Your task to perform on an android device: set the stopwatch Image 0: 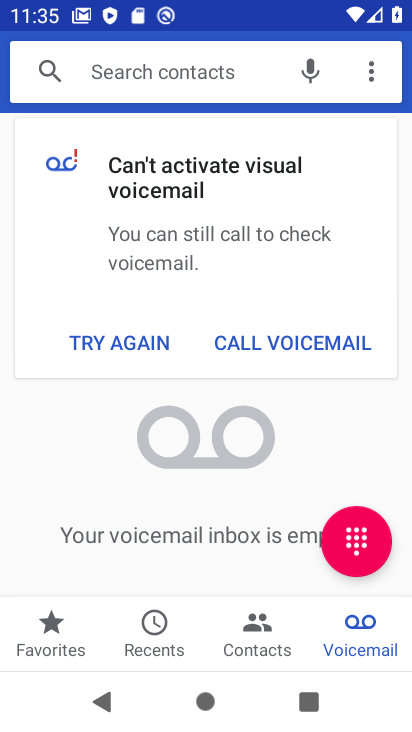
Step 0: press home button
Your task to perform on an android device: set the stopwatch Image 1: 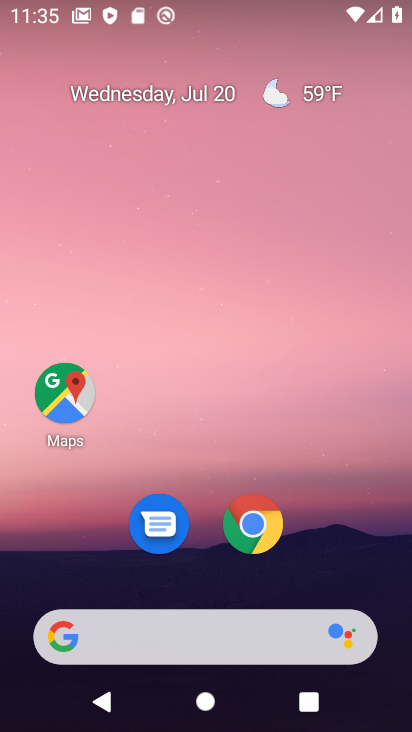
Step 1: drag from (227, 604) to (292, 170)
Your task to perform on an android device: set the stopwatch Image 2: 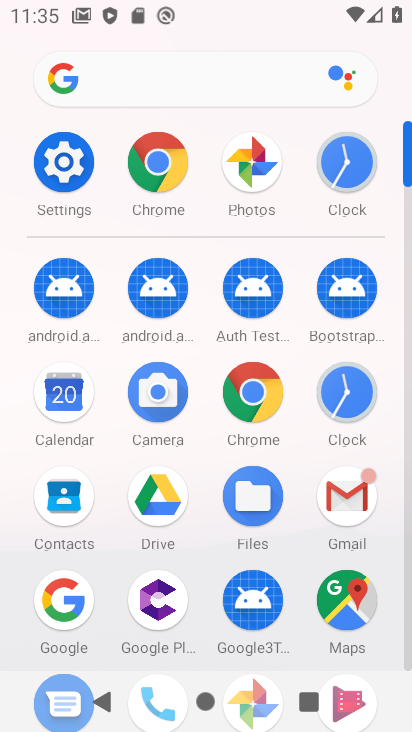
Step 2: click (339, 152)
Your task to perform on an android device: set the stopwatch Image 3: 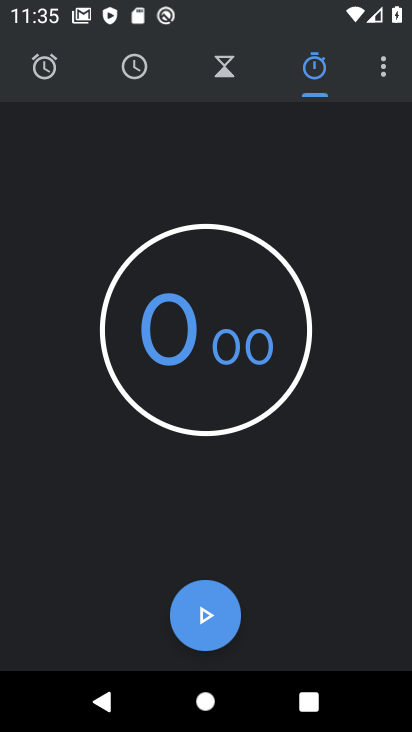
Step 3: click (214, 335)
Your task to perform on an android device: set the stopwatch Image 4: 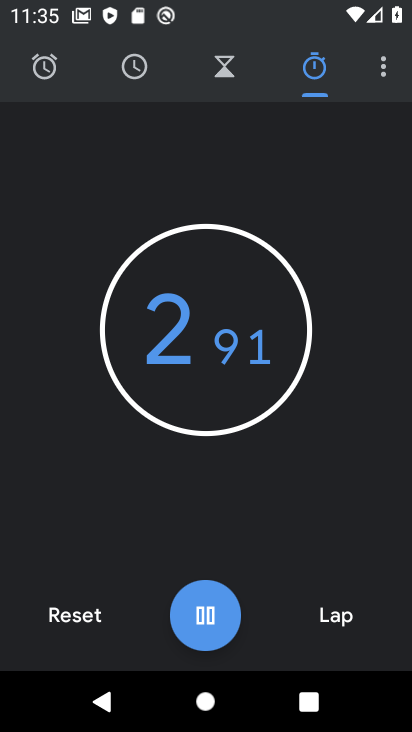
Step 4: click (214, 335)
Your task to perform on an android device: set the stopwatch Image 5: 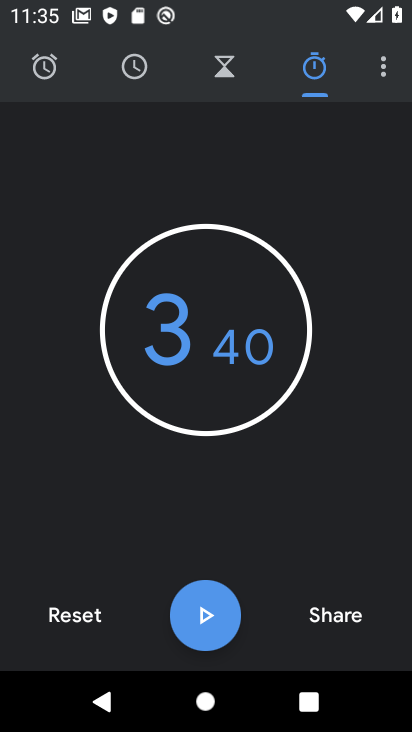
Step 5: task complete